Your task to perform on an android device: Set the phone to "Do not disturb". Image 0: 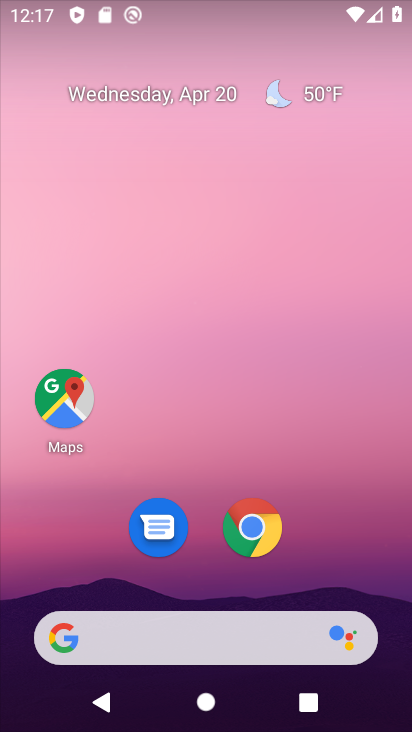
Step 0: drag from (357, 536) to (360, 9)
Your task to perform on an android device: Set the phone to "Do not disturb". Image 1: 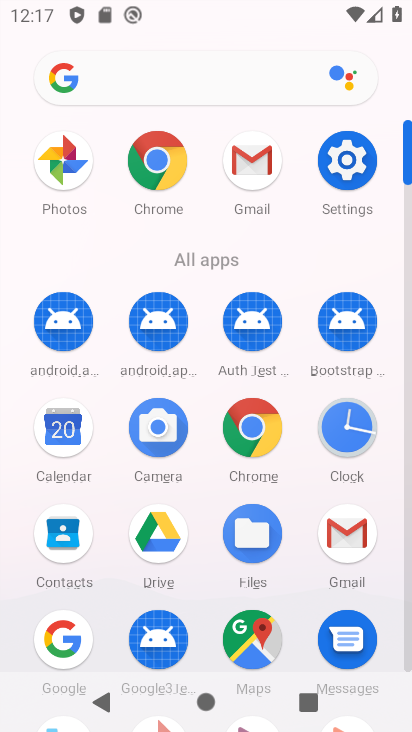
Step 1: click (354, 160)
Your task to perform on an android device: Set the phone to "Do not disturb". Image 2: 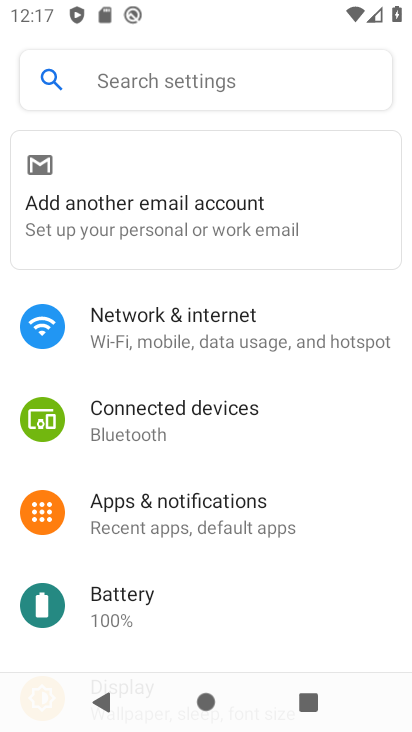
Step 2: drag from (274, 541) to (274, 67)
Your task to perform on an android device: Set the phone to "Do not disturb". Image 3: 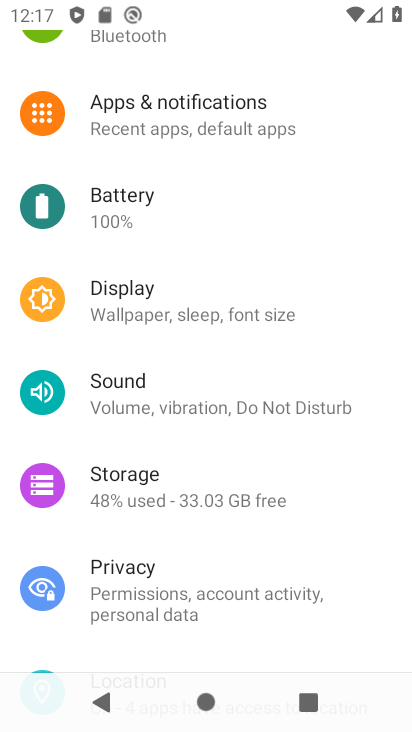
Step 3: click (114, 408)
Your task to perform on an android device: Set the phone to "Do not disturb". Image 4: 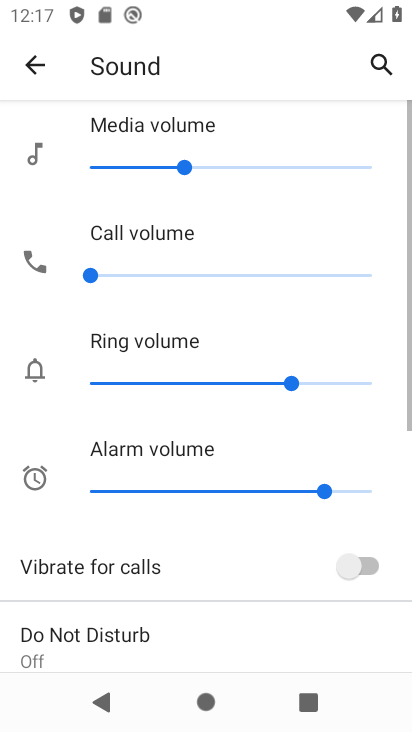
Step 4: drag from (186, 544) to (198, 126)
Your task to perform on an android device: Set the phone to "Do not disturb". Image 5: 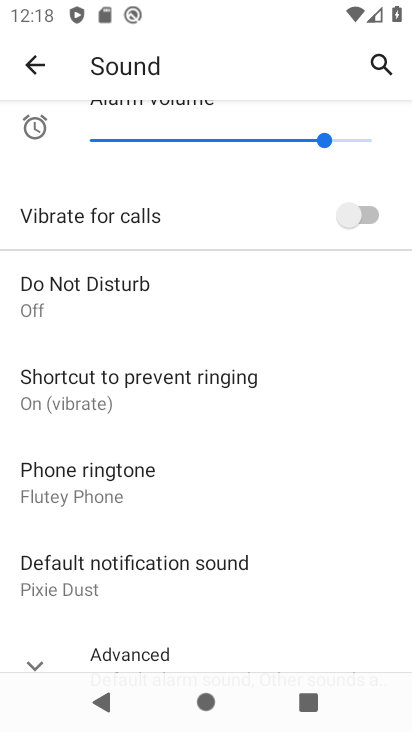
Step 5: click (75, 290)
Your task to perform on an android device: Set the phone to "Do not disturb". Image 6: 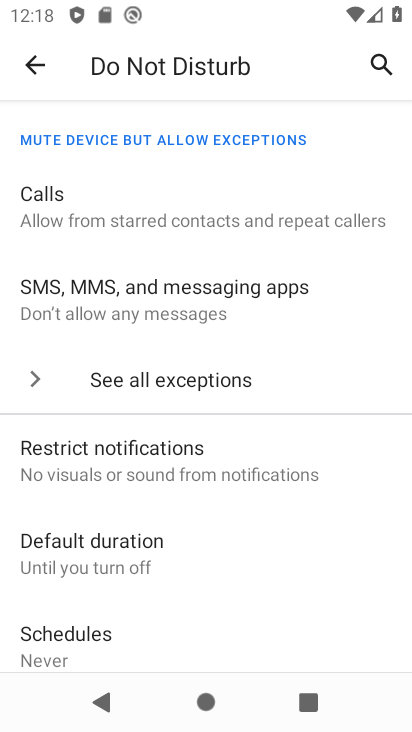
Step 6: drag from (160, 461) to (162, 104)
Your task to perform on an android device: Set the phone to "Do not disturb". Image 7: 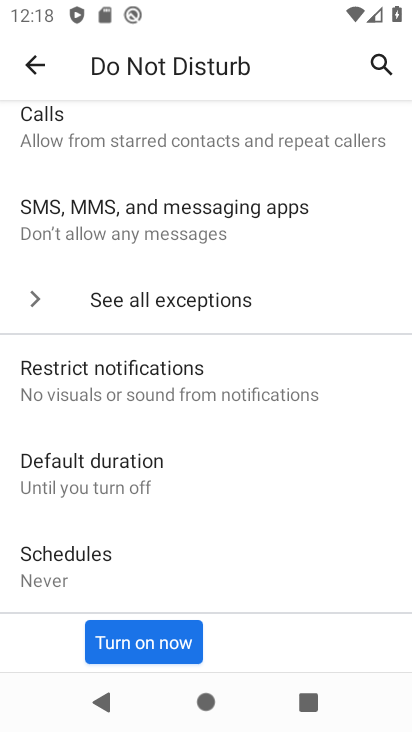
Step 7: click (131, 649)
Your task to perform on an android device: Set the phone to "Do not disturb". Image 8: 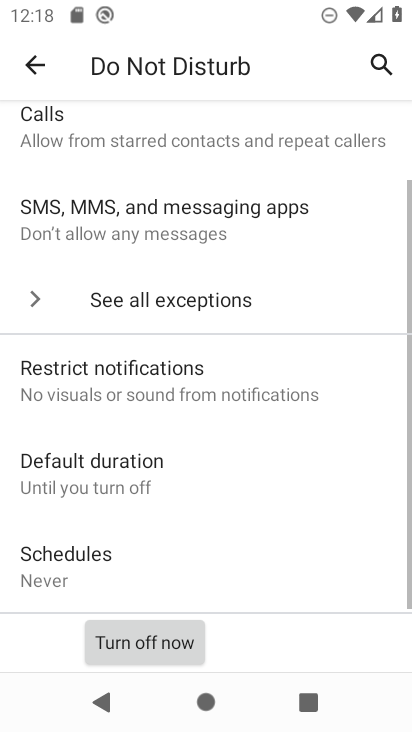
Step 8: task complete